Your task to perform on an android device: change the clock display to analog Image 0: 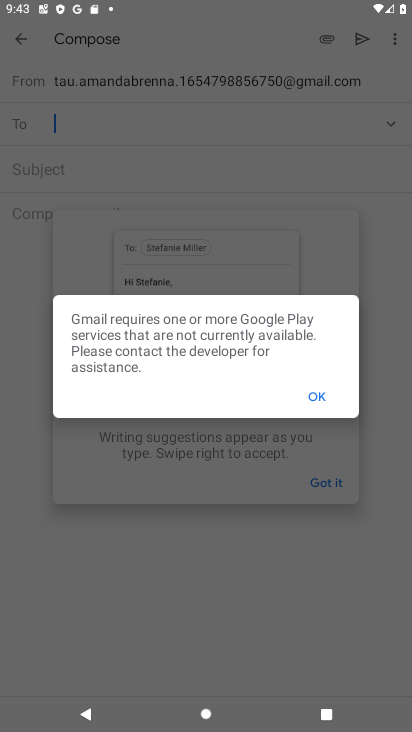
Step 0: press home button
Your task to perform on an android device: change the clock display to analog Image 1: 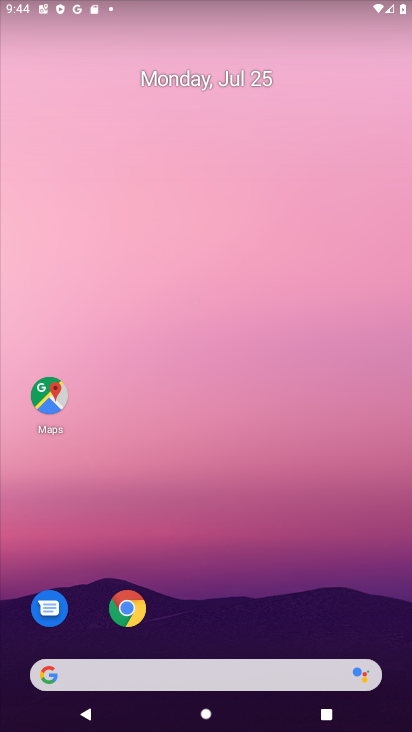
Step 1: drag from (203, 649) to (203, 136)
Your task to perform on an android device: change the clock display to analog Image 2: 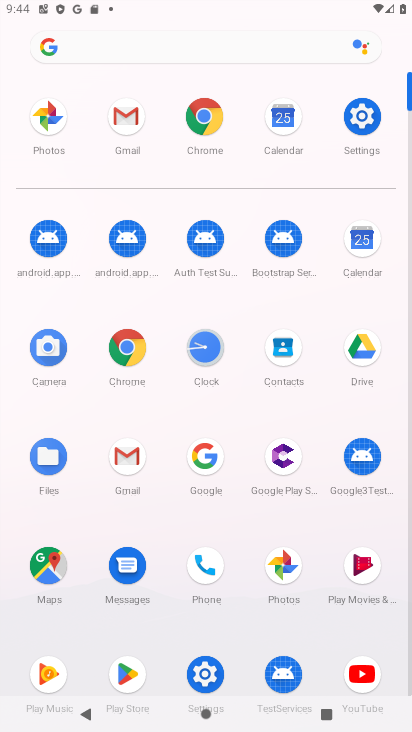
Step 2: click (189, 341)
Your task to perform on an android device: change the clock display to analog Image 3: 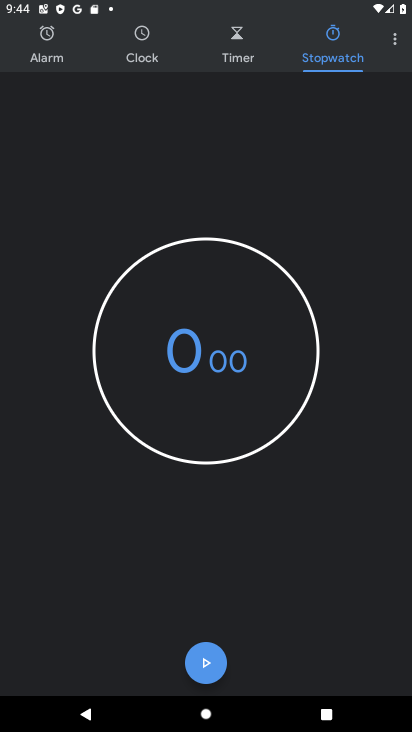
Step 3: click (394, 32)
Your task to perform on an android device: change the clock display to analog Image 4: 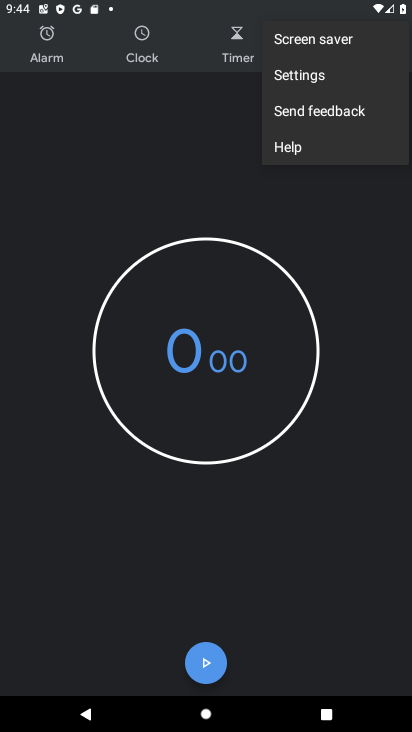
Step 4: click (360, 83)
Your task to perform on an android device: change the clock display to analog Image 5: 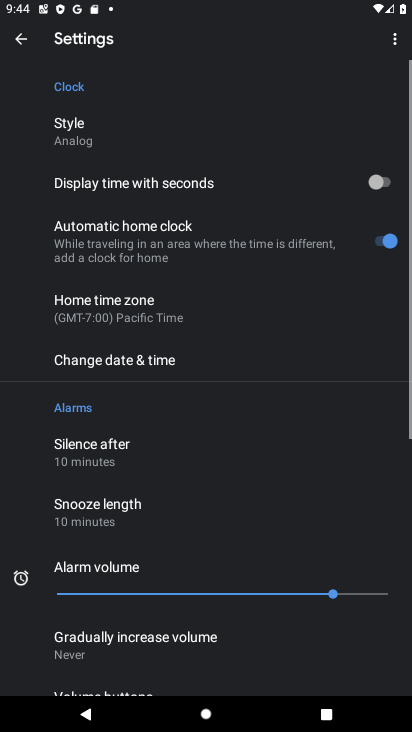
Step 5: click (69, 124)
Your task to perform on an android device: change the clock display to analog Image 6: 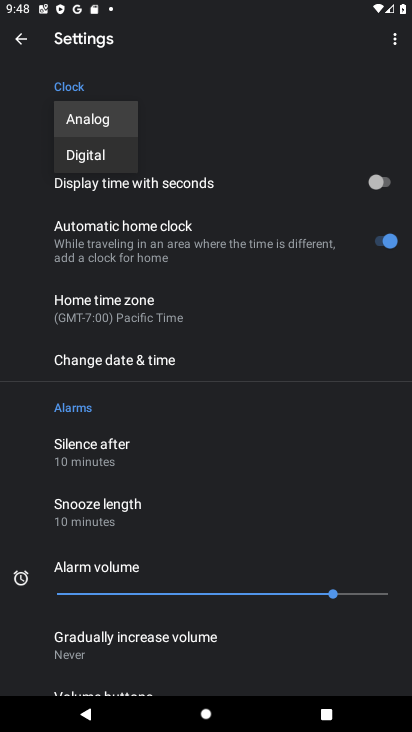
Step 6: task complete